Your task to perform on an android device: Open display settings Image 0: 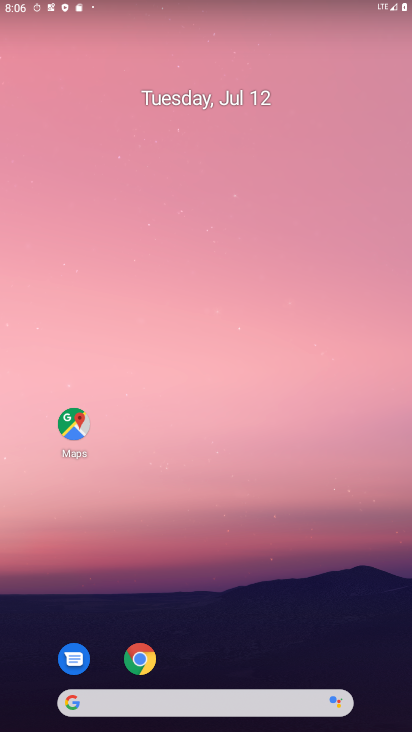
Step 0: drag from (367, 612) to (253, 84)
Your task to perform on an android device: Open display settings Image 1: 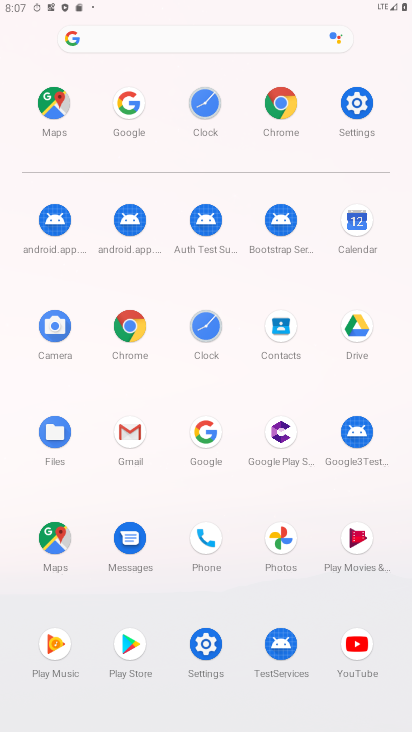
Step 1: click (187, 647)
Your task to perform on an android device: Open display settings Image 2: 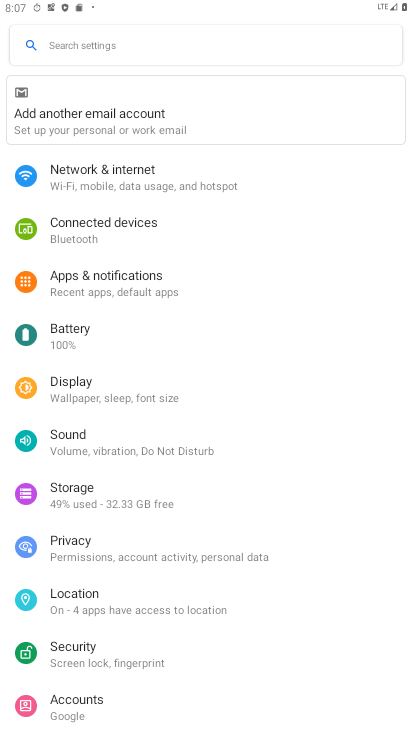
Step 2: click (111, 396)
Your task to perform on an android device: Open display settings Image 3: 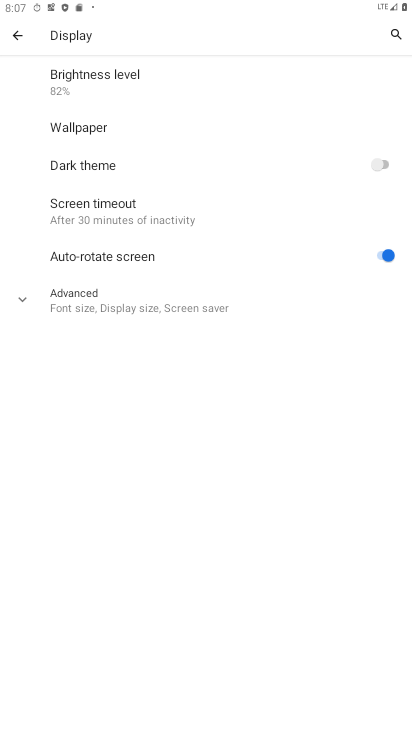
Step 3: task complete